Your task to perform on an android device: Go to privacy settings Image 0: 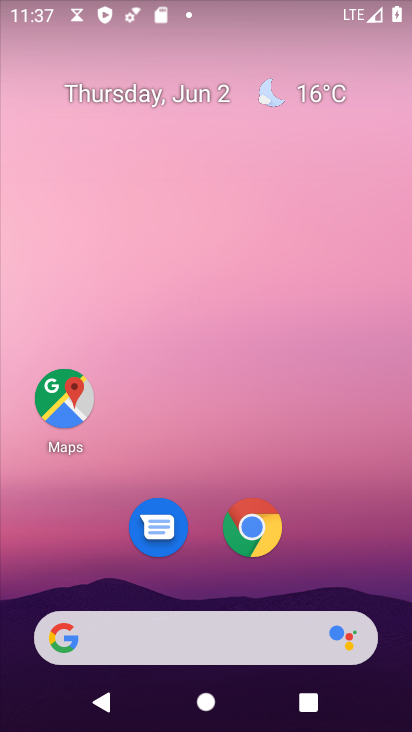
Step 0: drag from (232, 634) to (311, 178)
Your task to perform on an android device: Go to privacy settings Image 1: 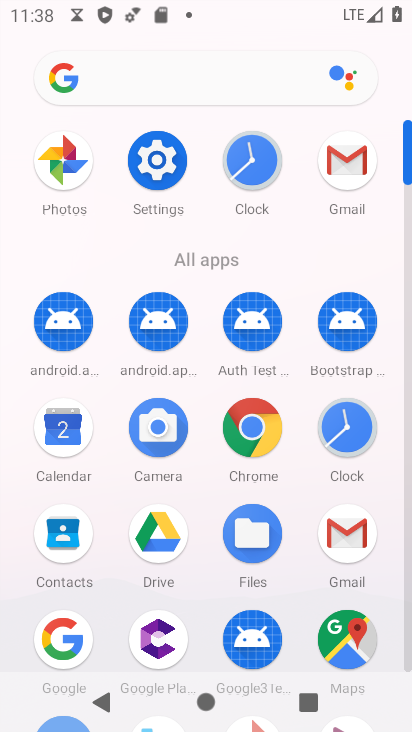
Step 1: click (165, 159)
Your task to perform on an android device: Go to privacy settings Image 2: 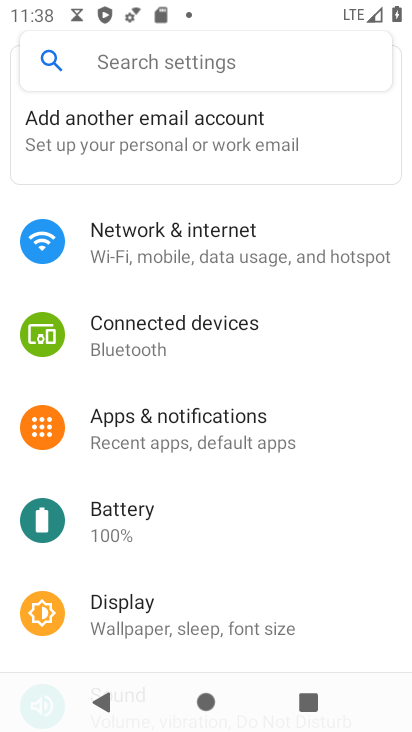
Step 2: drag from (189, 501) to (111, 1)
Your task to perform on an android device: Go to privacy settings Image 3: 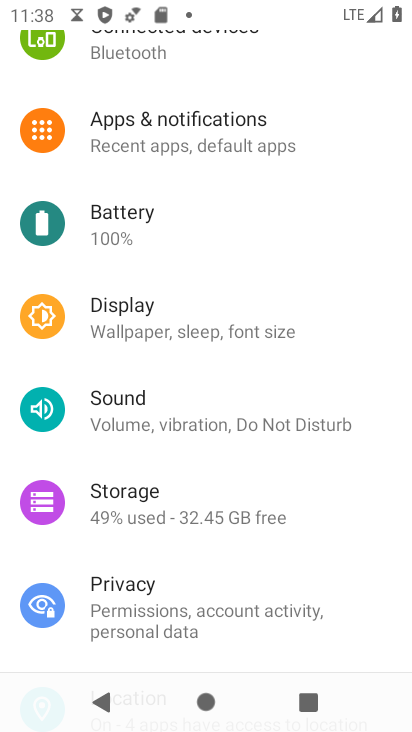
Step 3: click (143, 601)
Your task to perform on an android device: Go to privacy settings Image 4: 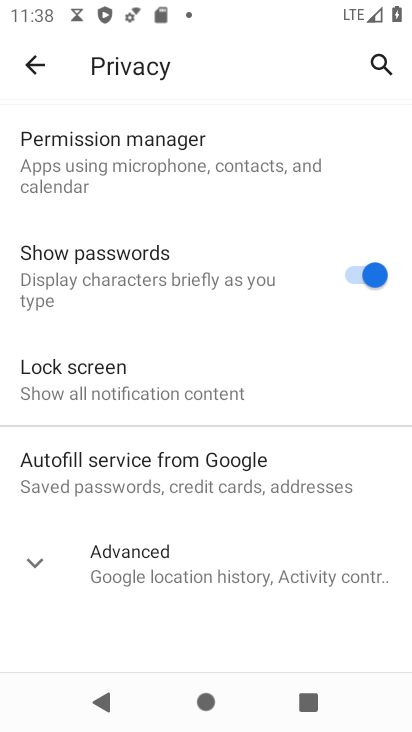
Step 4: task complete